Your task to perform on an android device: open app "VLC for Android" Image 0: 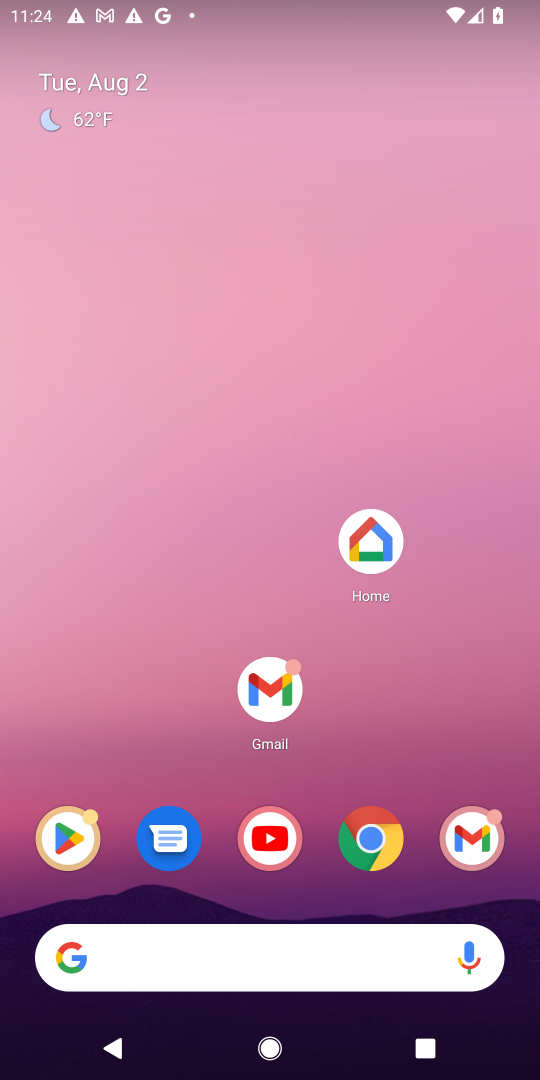
Step 0: press home button
Your task to perform on an android device: open app "VLC for Android" Image 1: 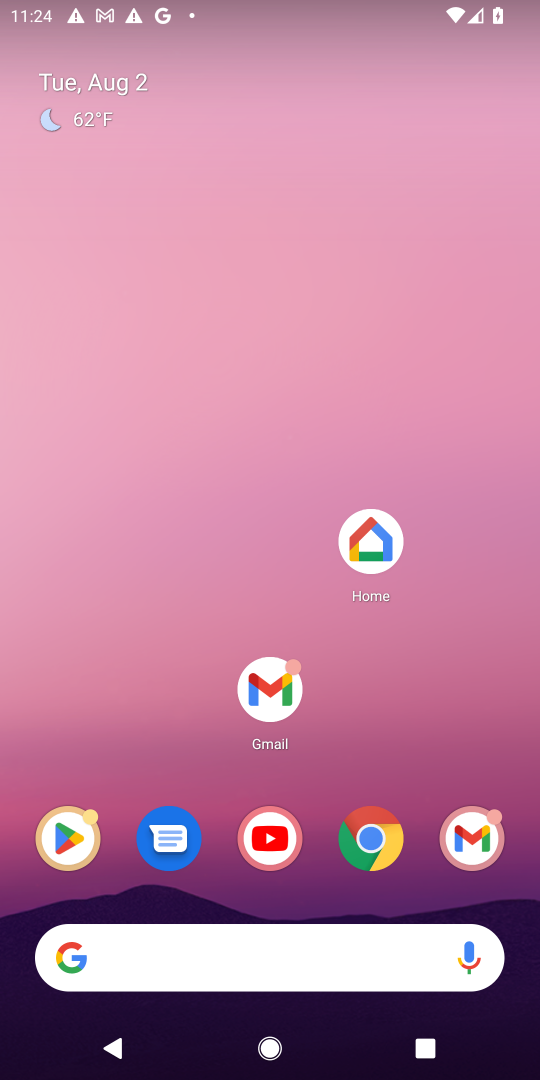
Step 1: drag from (411, 464) to (416, 297)
Your task to perform on an android device: open app "VLC for Android" Image 2: 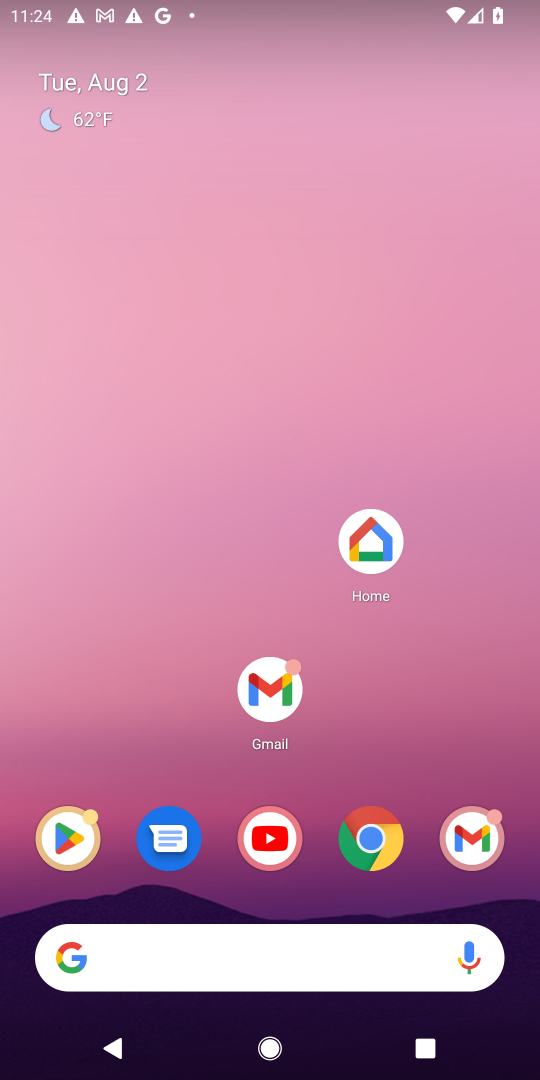
Step 2: drag from (404, 762) to (416, 130)
Your task to perform on an android device: open app "VLC for Android" Image 3: 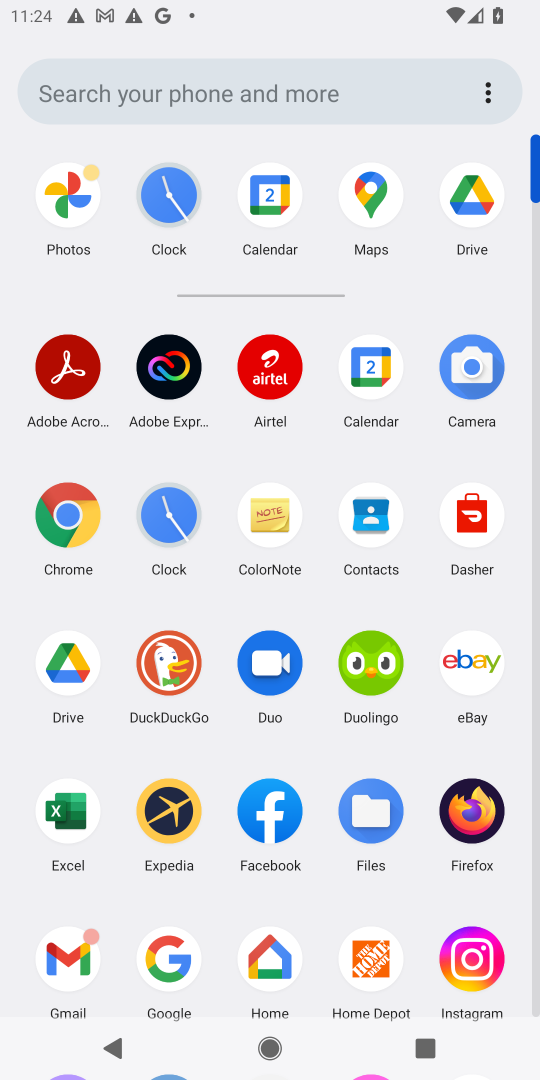
Step 3: drag from (408, 767) to (423, 507)
Your task to perform on an android device: open app "VLC for Android" Image 4: 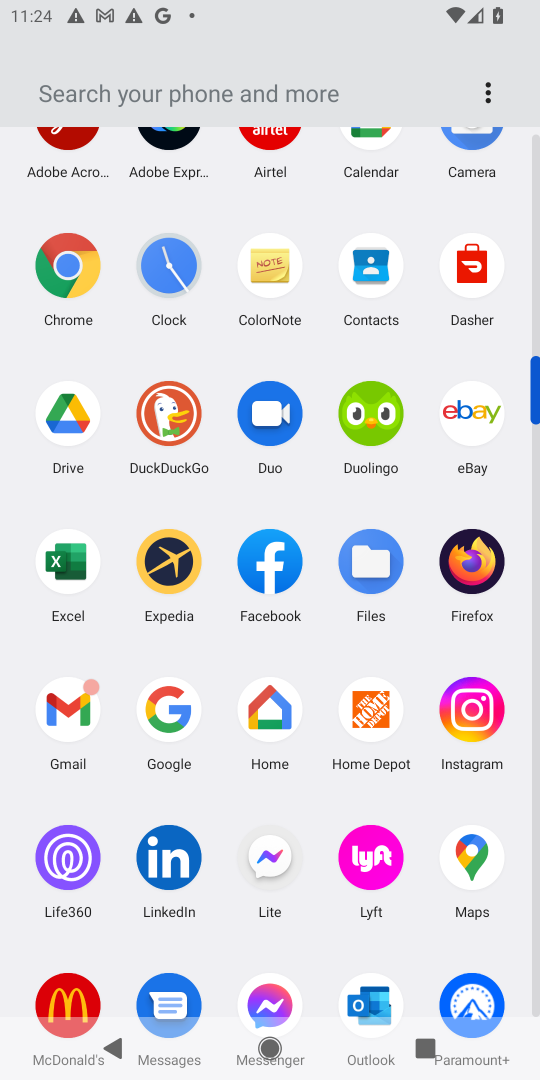
Step 4: drag from (413, 810) to (417, 587)
Your task to perform on an android device: open app "VLC for Android" Image 5: 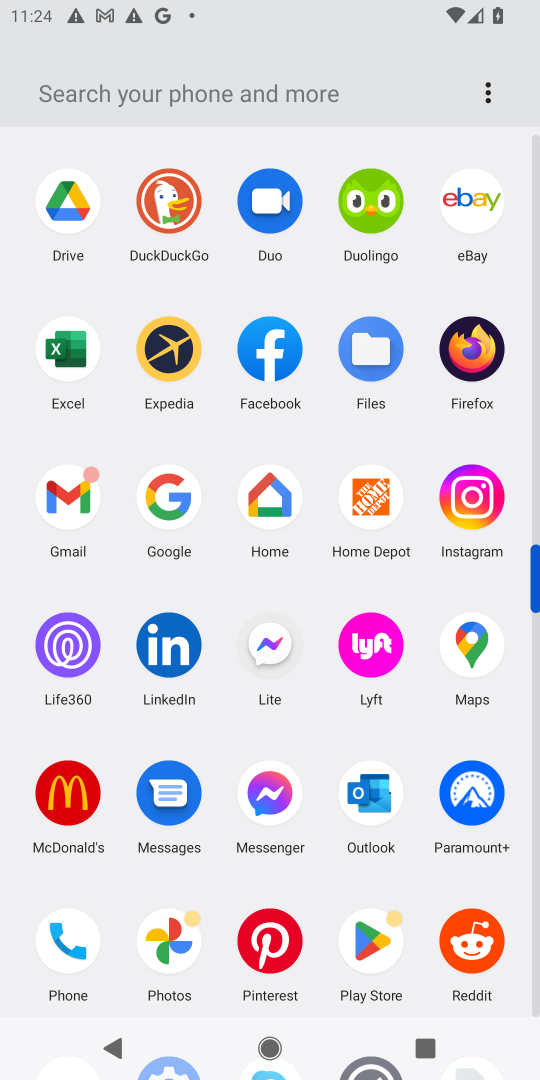
Step 5: drag from (412, 862) to (411, 557)
Your task to perform on an android device: open app "VLC for Android" Image 6: 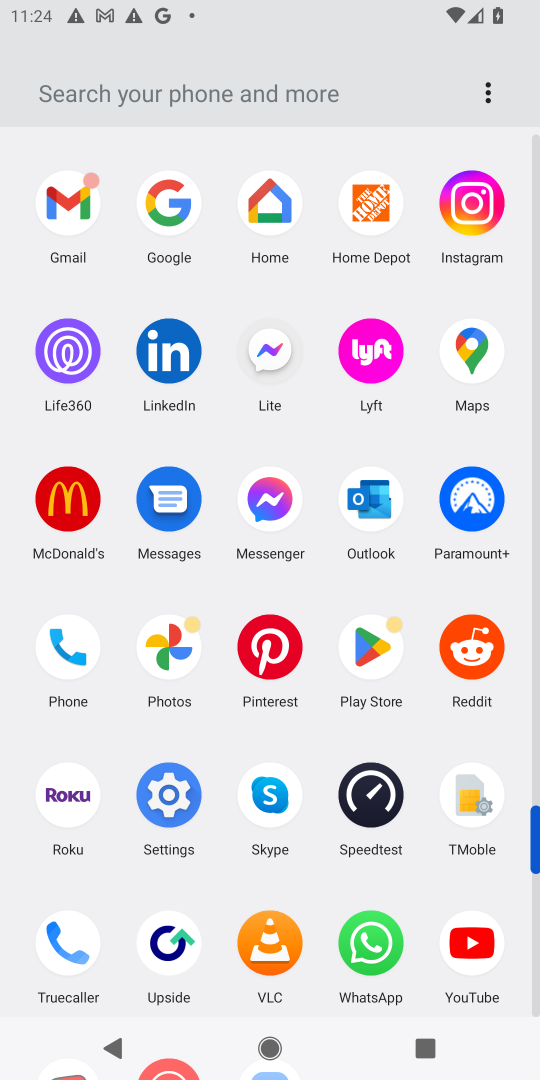
Step 6: click (370, 658)
Your task to perform on an android device: open app "VLC for Android" Image 7: 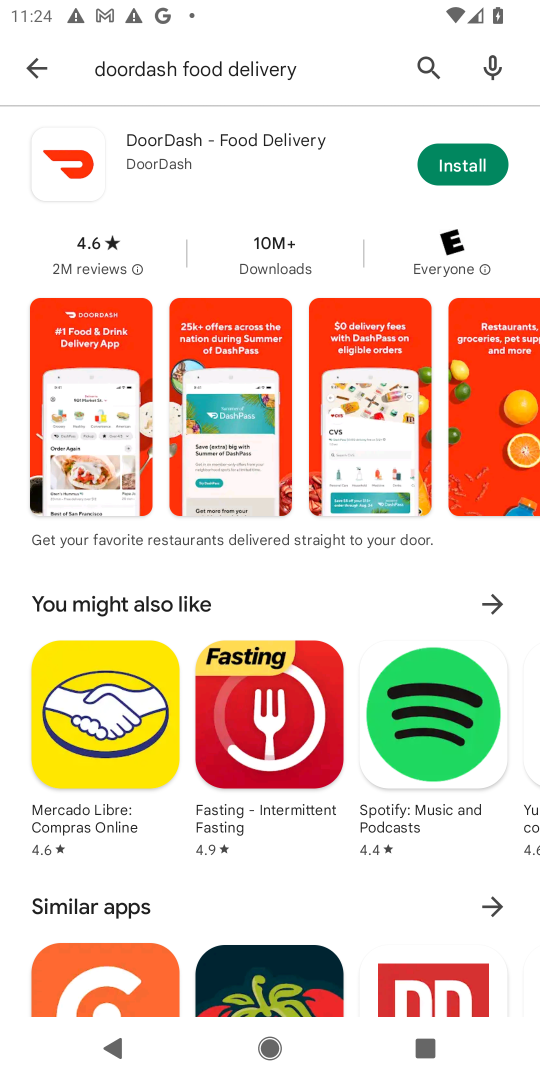
Step 7: click (417, 68)
Your task to perform on an android device: open app "VLC for Android" Image 8: 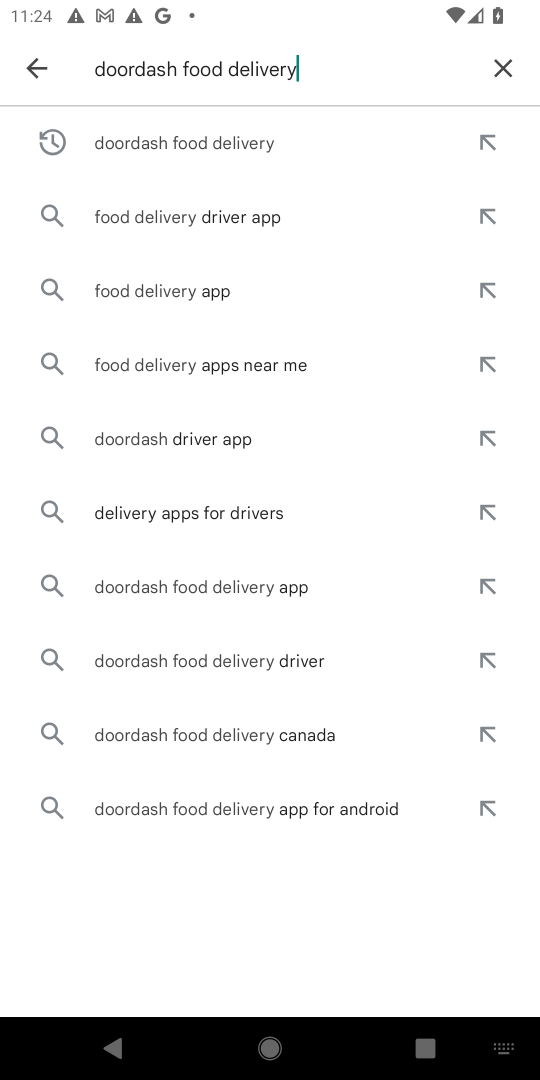
Step 8: click (504, 69)
Your task to perform on an android device: open app "VLC for Android" Image 9: 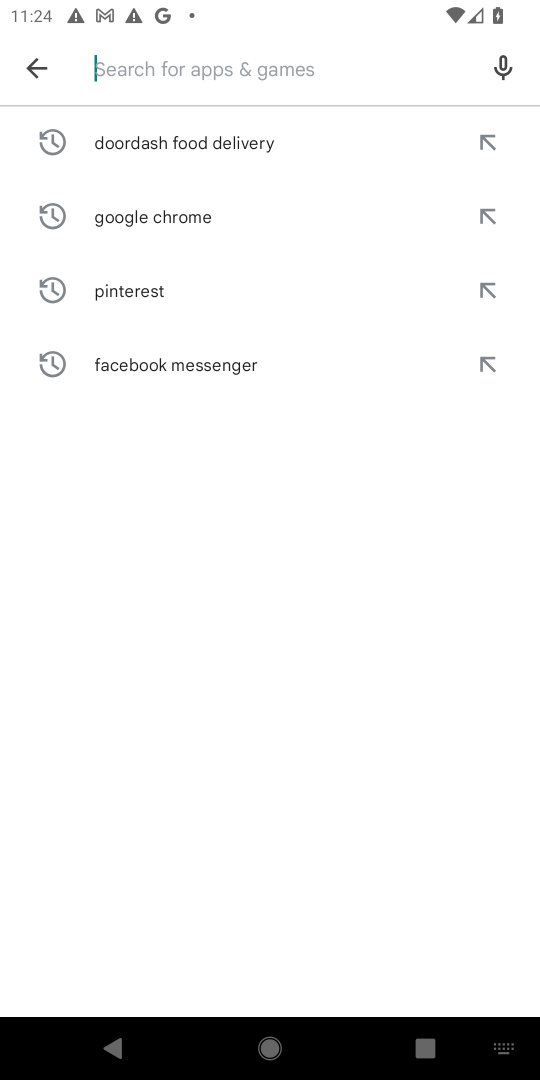
Step 9: type "vlc for android"
Your task to perform on an android device: open app "VLC for Android" Image 10: 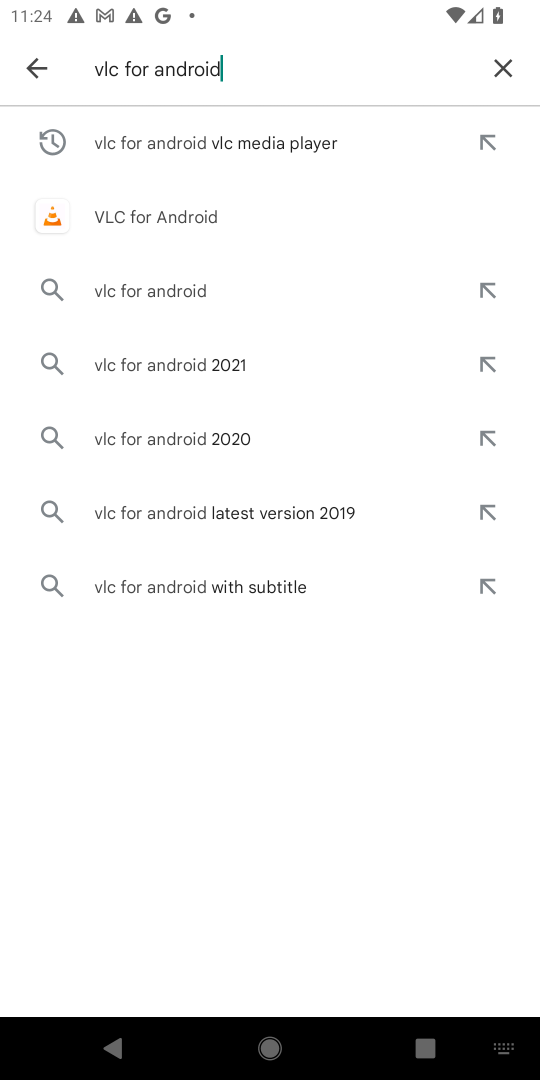
Step 10: click (221, 219)
Your task to perform on an android device: open app "VLC for Android" Image 11: 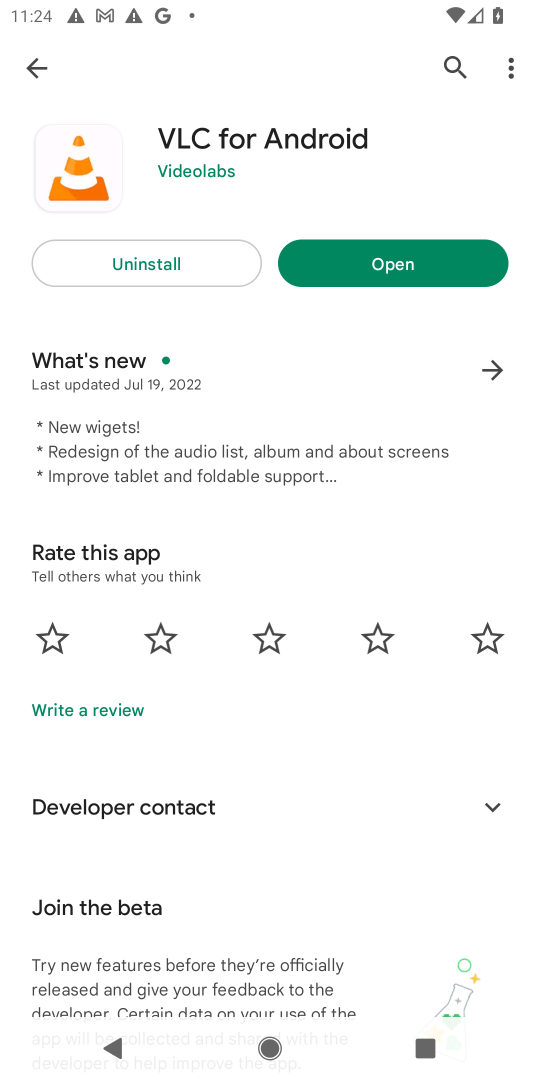
Step 11: click (439, 248)
Your task to perform on an android device: open app "VLC for Android" Image 12: 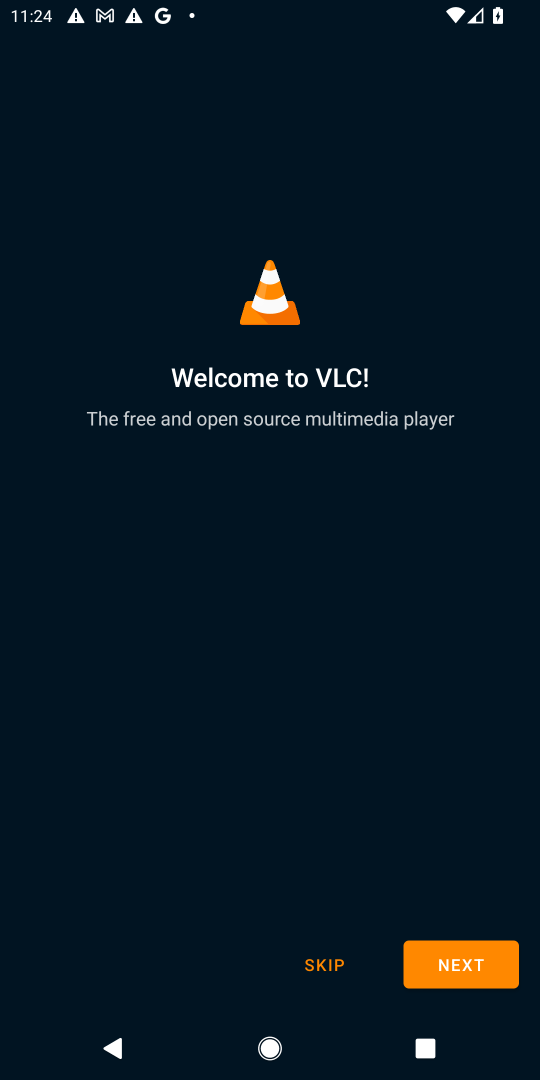
Step 12: task complete